Your task to perform on an android device: open sync settings in chrome Image 0: 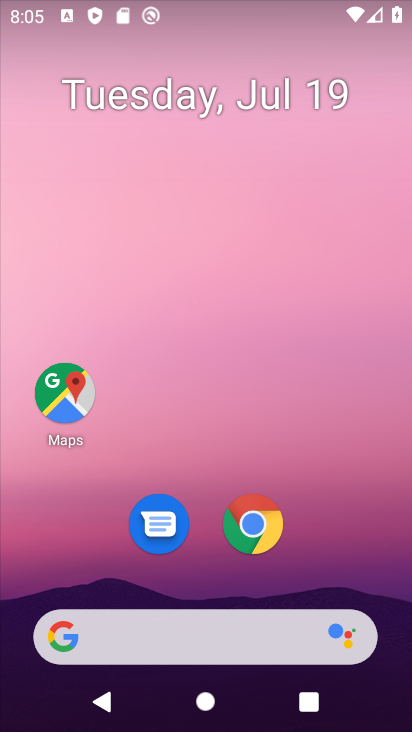
Step 0: click (261, 521)
Your task to perform on an android device: open sync settings in chrome Image 1: 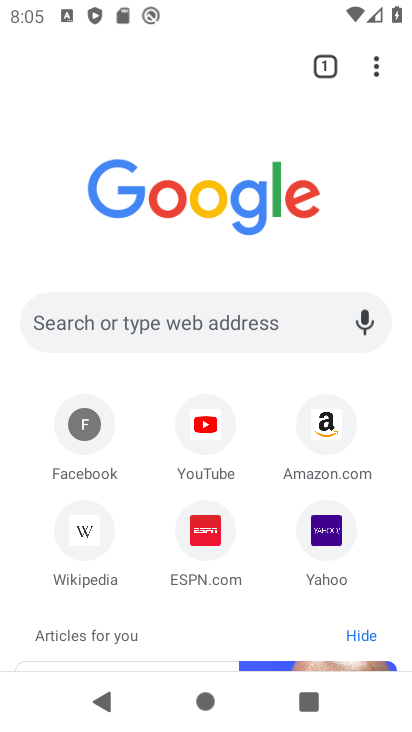
Step 1: click (376, 70)
Your task to perform on an android device: open sync settings in chrome Image 2: 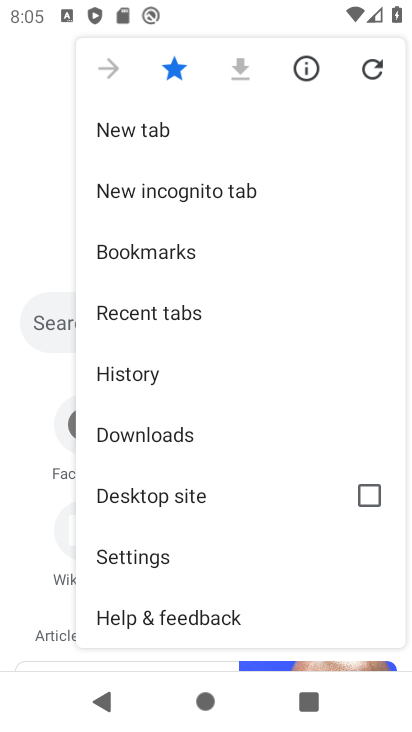
Step 2: click (151, 560)
Your task to perform on an android device: open sync settings in chrome Image 3: 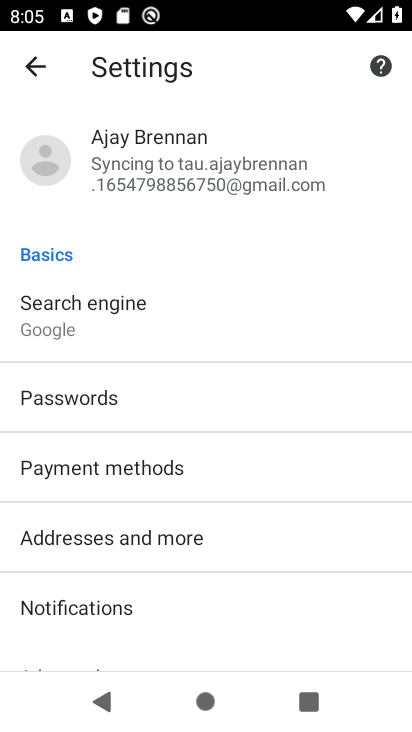
Step 3: click (237, 157)
Your task to perform on an android device: open sync settings in chrome Image 4: 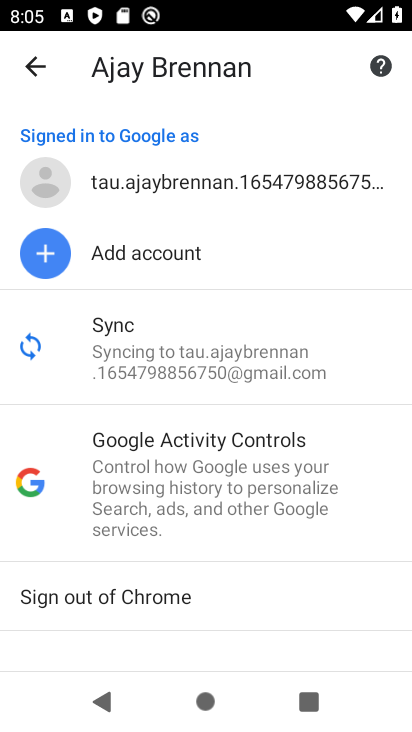
Step 4: click (206, 354)
Your task to perform on an android device: open sync settings in chrome Image 5: 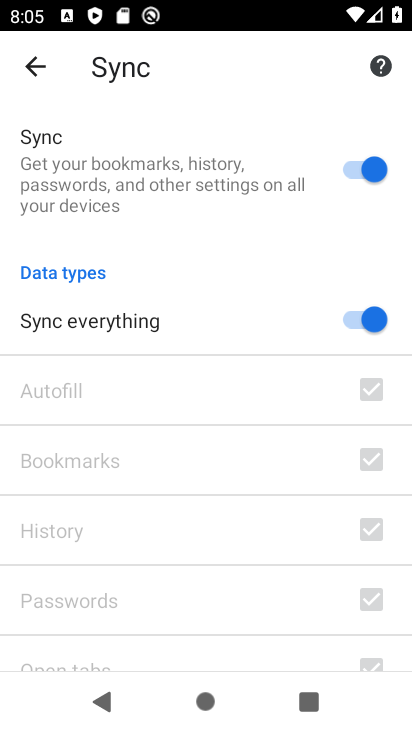
Step 5: task complete